Your task to perform on an android device: create a new album in the google photos Image 0: 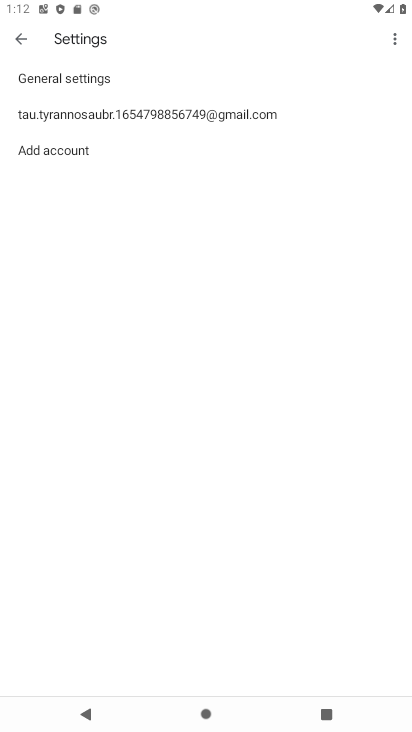
Step 0: press home button
Your task to perform on an android device: create a new album in the google photos Image 1: 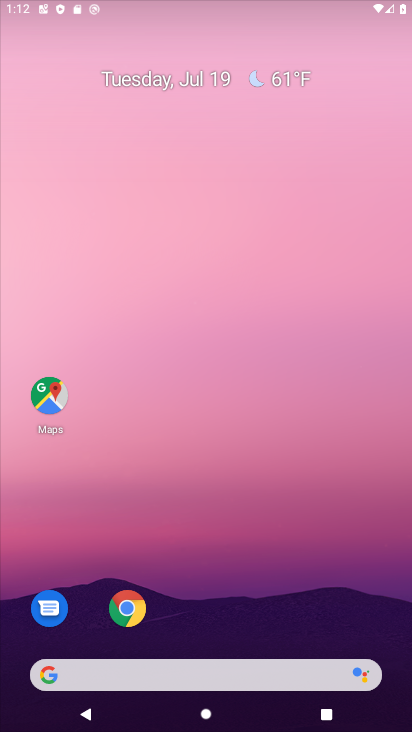
Step 1: drag from (176, 626) to (213, 113)
Your task to perform on an android device: create a new album in the google photos Image 2: 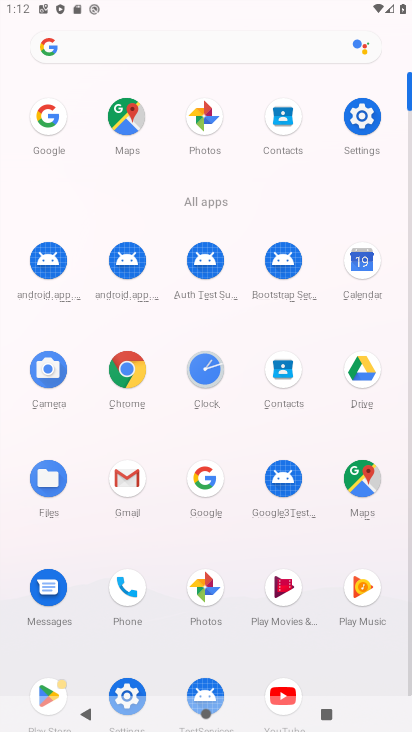
Step 2: click (207, 590)
Your task to perform on an android device: create a new album in the google photos Image 3: 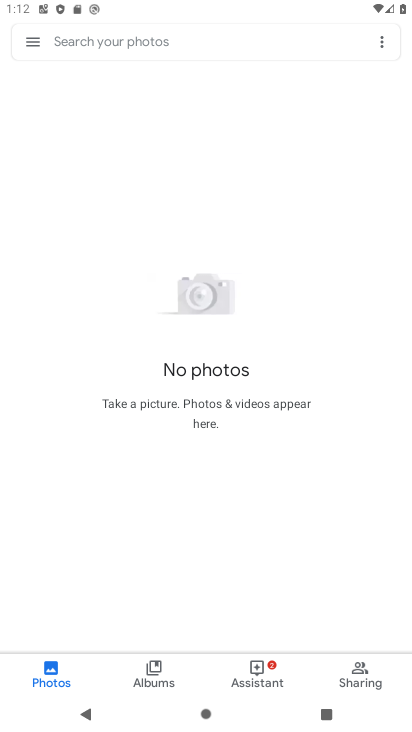
Step 3: click (159, 664)
Your task to perform on an android device: create a new album in the google photos Image 4: 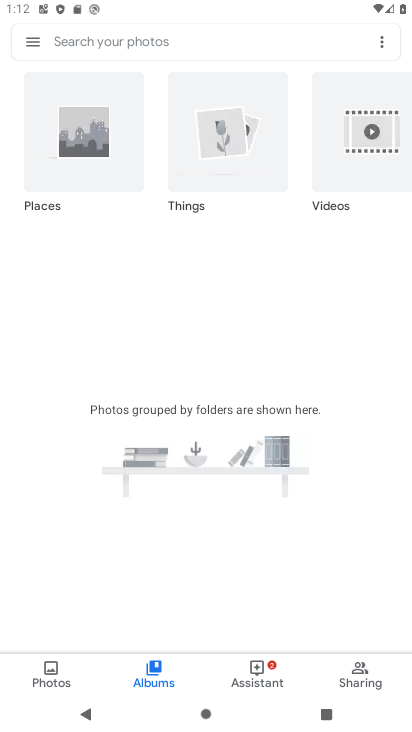
Step 4: task complete